Your task to perform on an android device: Go to Amazon Image 0: 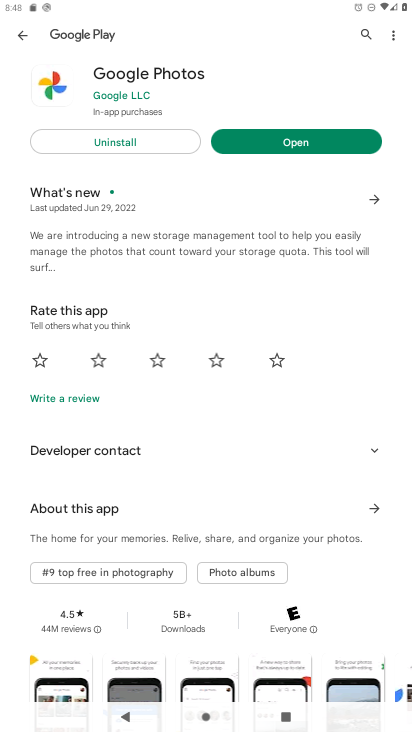
Step 0: press home button
Your task to perform on an android device: Go to Amazon Image 1: 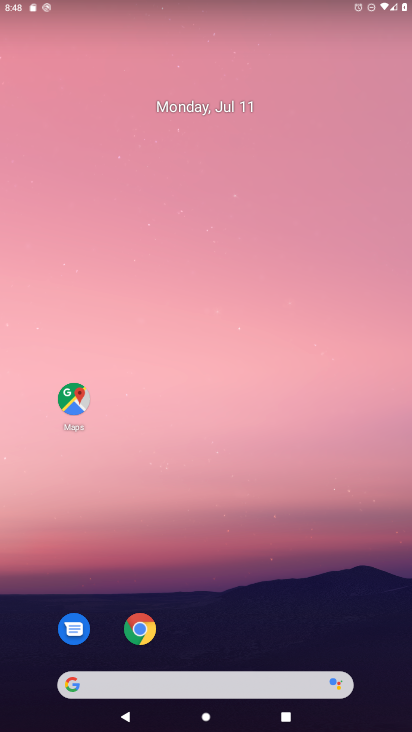
Step 1: drag from (234, 619) to (227, 81)
Your task to perform on an android device: Go to Amazon Image 2: 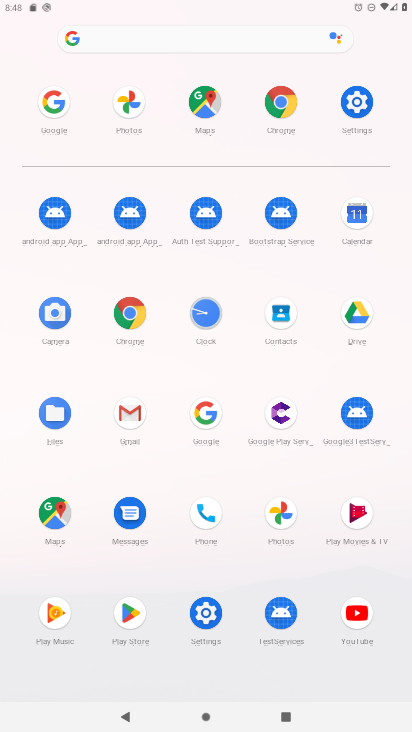
Step 2: click (283, 104)
Your task to perform on an android device: Go to Amazon Image 3: 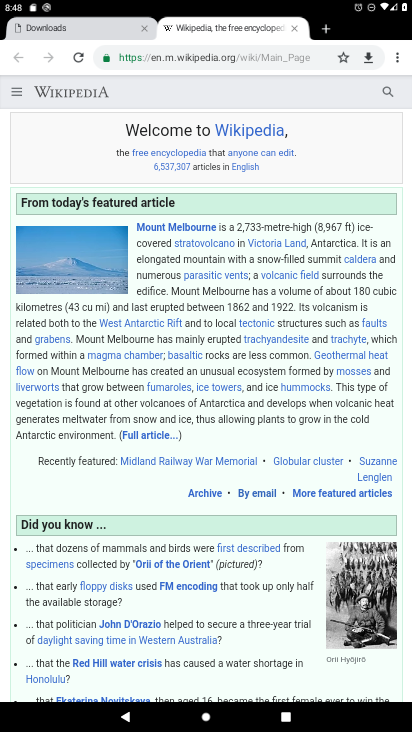
Step 3: press back button
Your task to perform on an android device: Go to Amazon Image 4: 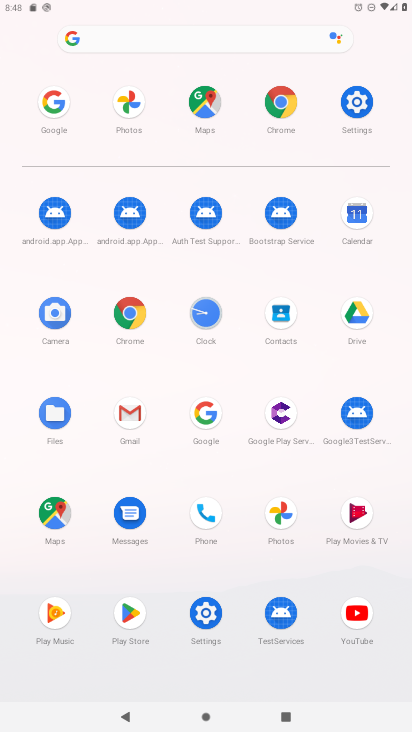
Step 4: click (288, 104)
Your task to perform on an android device: Go to Amazon Image 5: 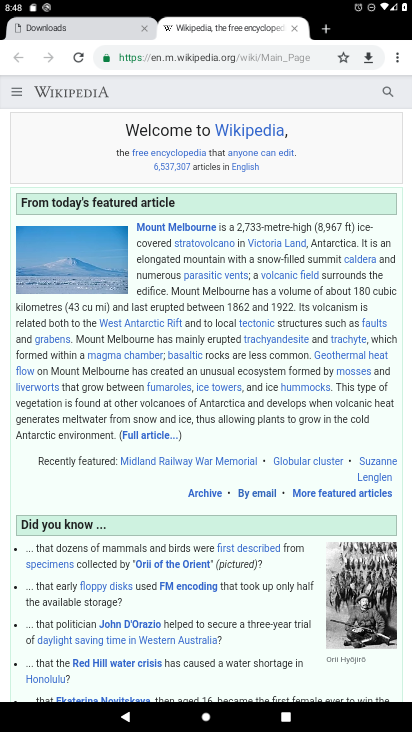
Step 5: click (321, 30)
Your task to perform on an android device: Go to Amazon Image 6: 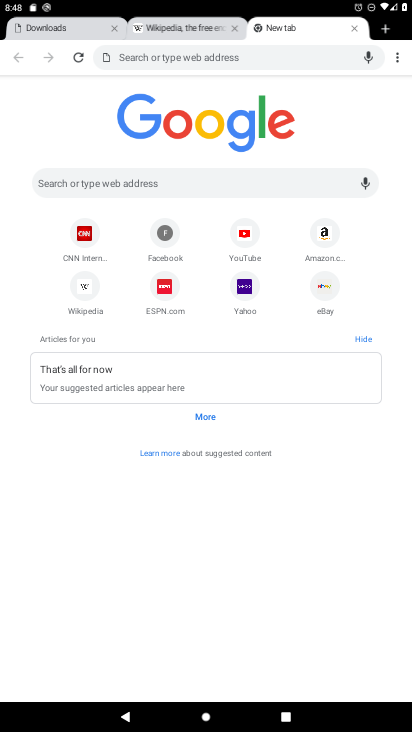
Step 6: click (325, 231)
Your task to perform on an android device: Go to Amazon Image 7: 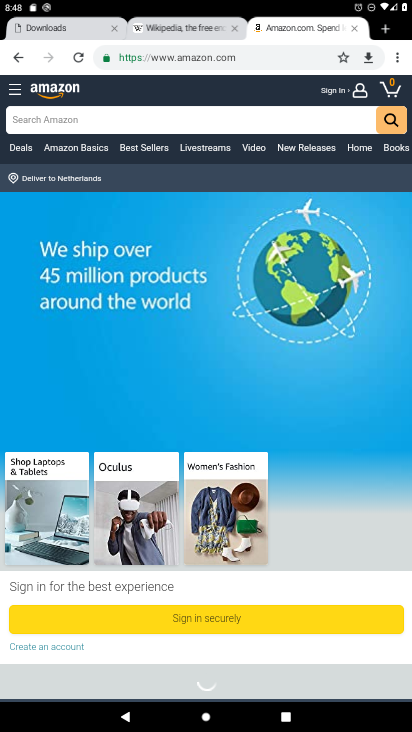
Step 7: task complete